Your task to perform on an android device: When is my next meeting? Image 0: 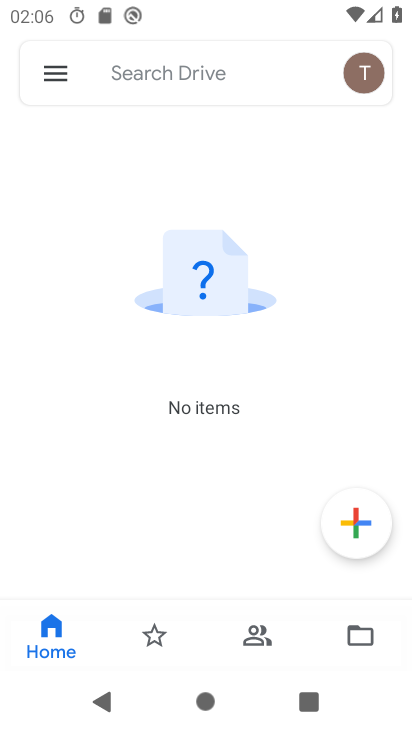
Step 0: press home button
Your task to perform on an android device: When is my next meeting? Image 1: 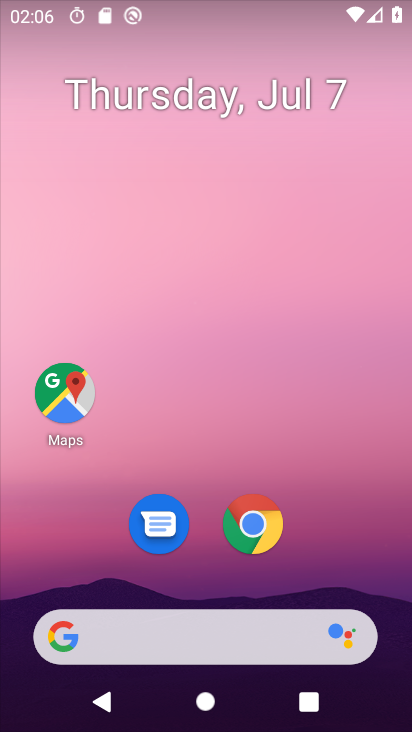
Step 1: drag from (311, 492) to (267, 30)
Your task to perform on an android device: When is my next meeting? Image 2: 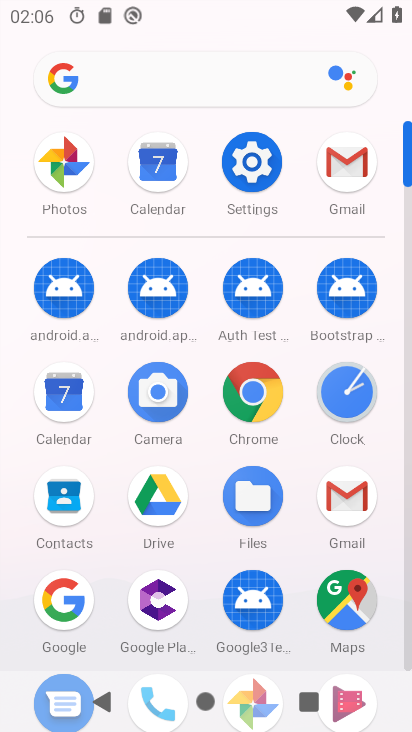
Step 2: click (59, 392)
Your task to perform on an android device: When is my next meeting? Image 3: 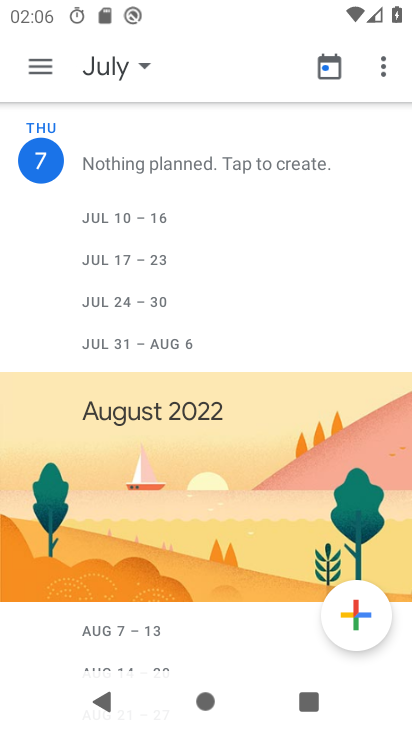
Step 3: task complete